Your task to perform on an android device: Open sound settings Image 0: 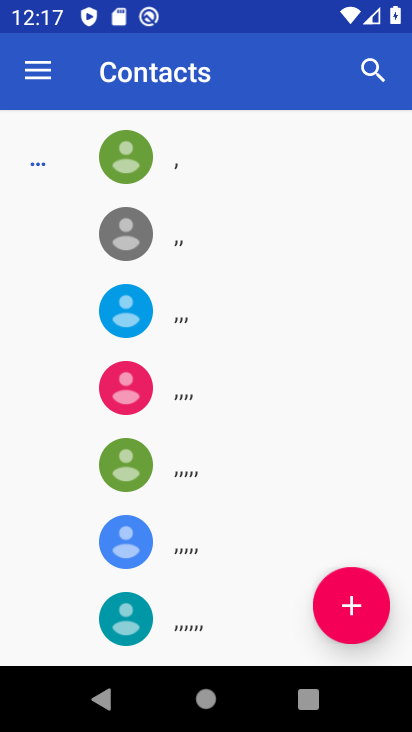
Step 0: press home button
Your task to perform on an android device: Open sound settings Image 1: 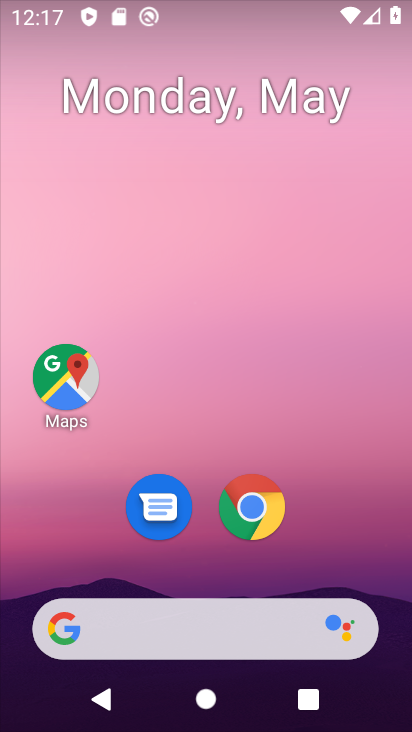
Step 1: drag from (231, 721) to (232, 231)
Your task to perform on an android device: Open sound settings Image 2: 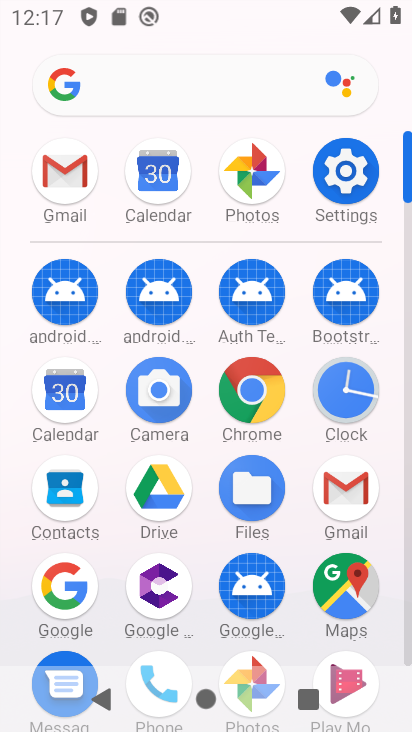
Step 2: click (343, 177)
Your task to perform on an android device: Open sound settings Image 3: 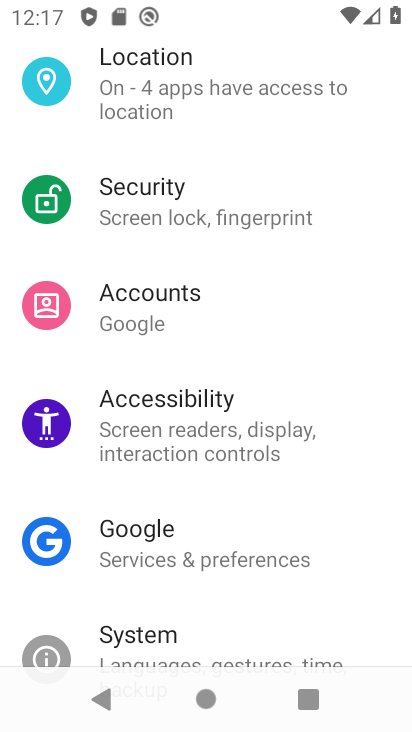
Step 3: drag from (252, 160) to (255, 495)
Your task to perform on an android device: Open sound settings Image 4: 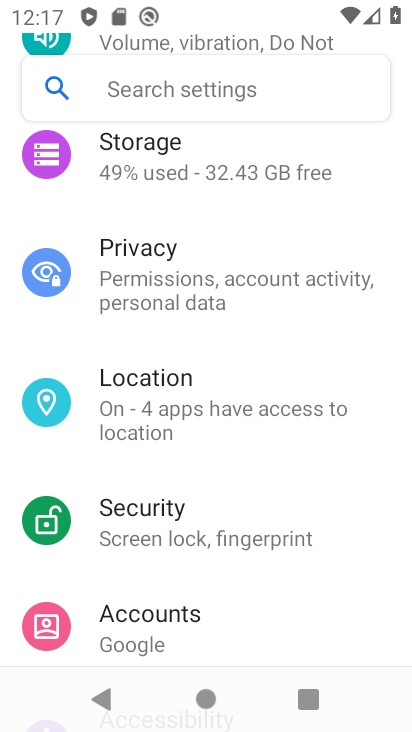
Step 4: drag from (187, 209) to (213, 621)
Your task to perform on an android device: Open sound settings Image 5: 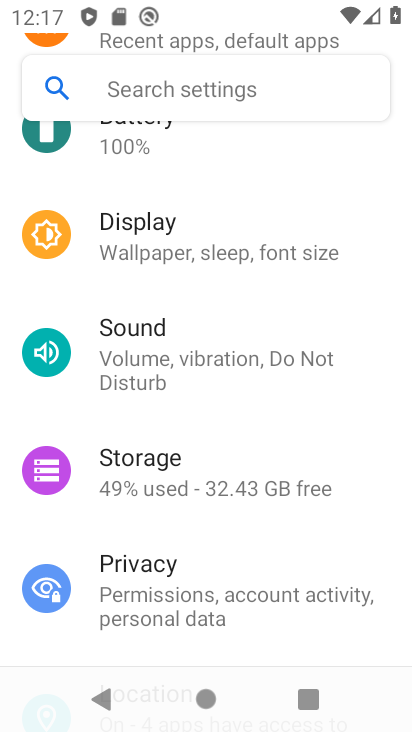
Step 5: click (153, 352)
Your task to perform on an android device: Open sound settings Image 6: 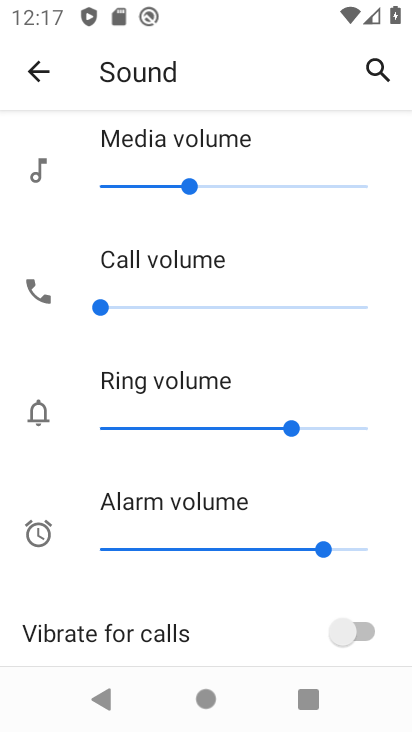
Step 6: task complete